Your task to perform on an android device: open app "Cash App" Image 0: 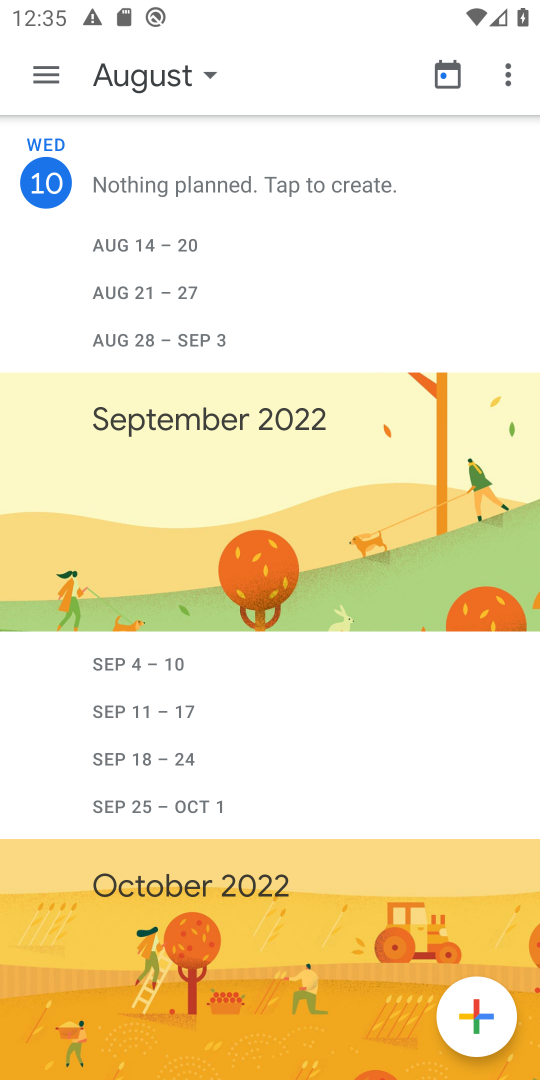
Step 0: press home button
Your task to perform on an android device: open app "Cash App" Image 1: 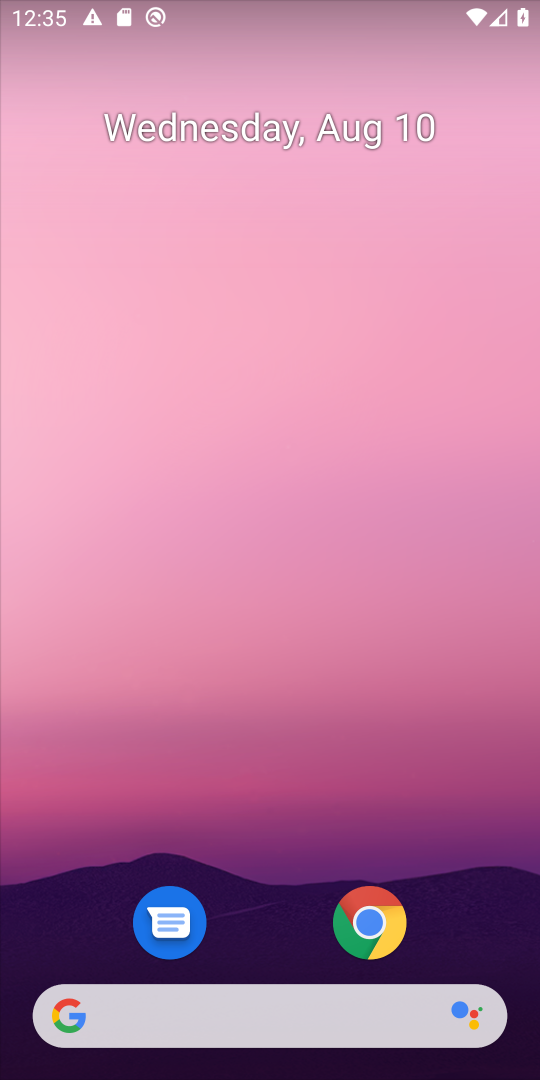
Step 1: drag from (273, 854) to (342, 264)
Your task to perform on an android device: open app "Cash App" Image 2: 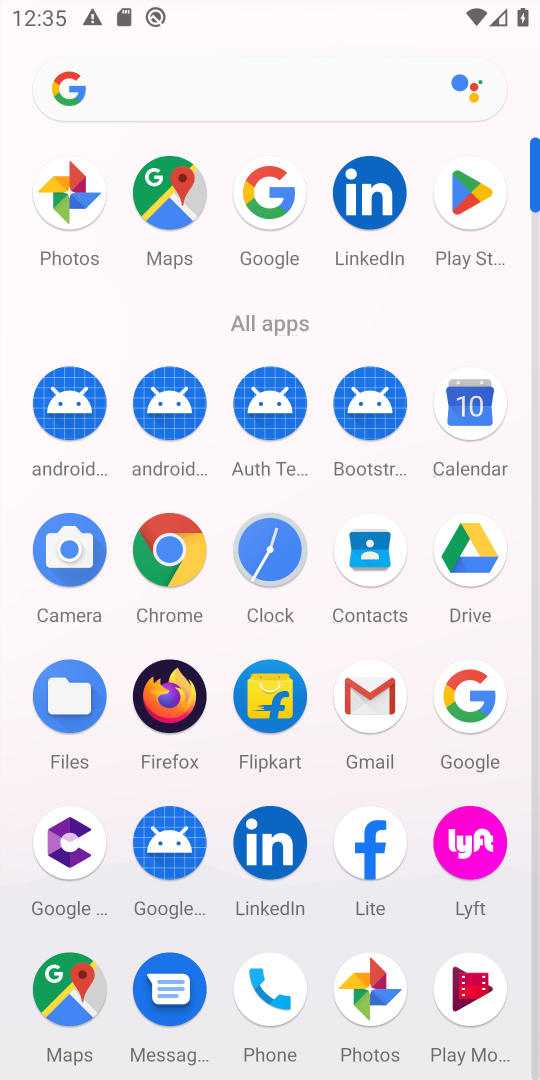
Step 2: click (466, 205)
Your task to perform on an android device: open app "Cash App" Image 3: 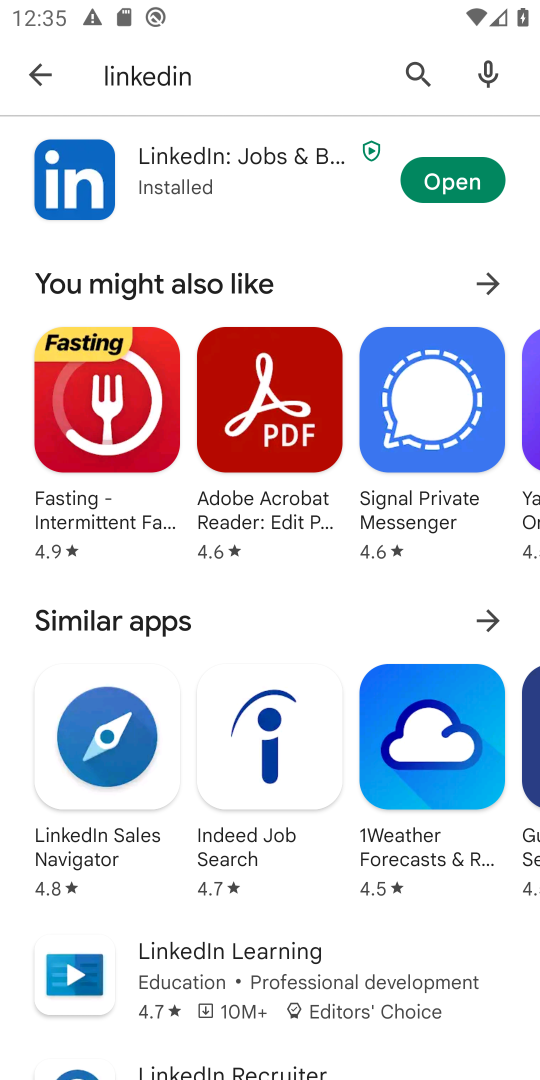
Step 3: click (47, 82)
Your task to perform on an android device: open app "Cash App" Image 4: 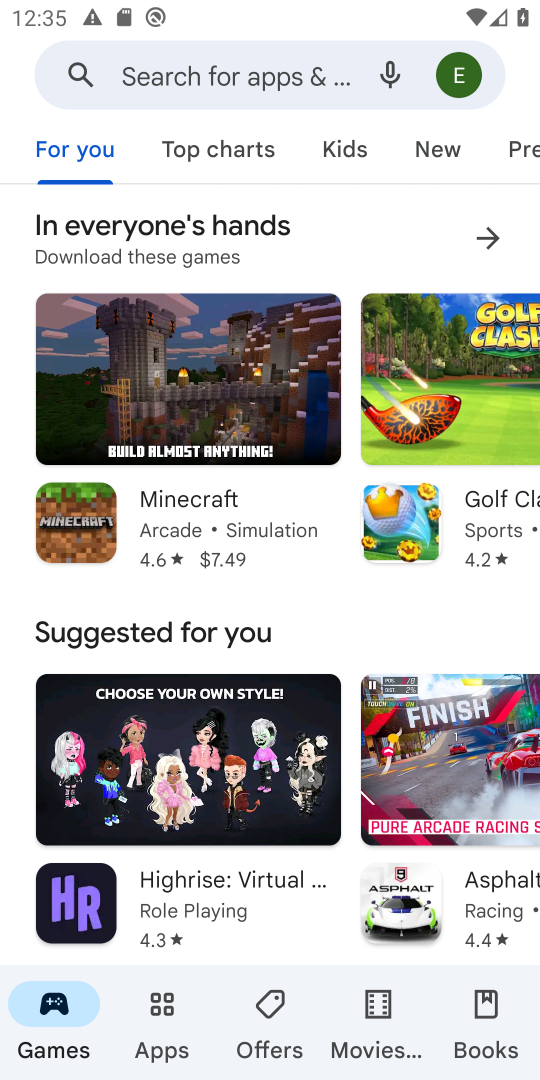
Step 4: click (218, 81)
Your task to perform on an android device: open app "Cash App" Image 5: 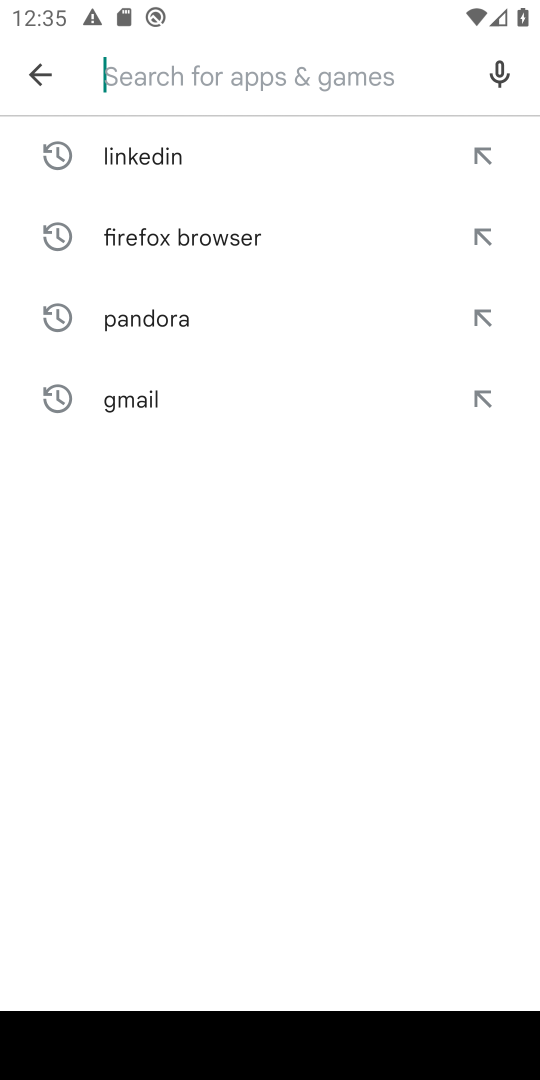
Step 5: type "Cash App"
Your task to perform on an android device: open app "Cash App" Image 6: 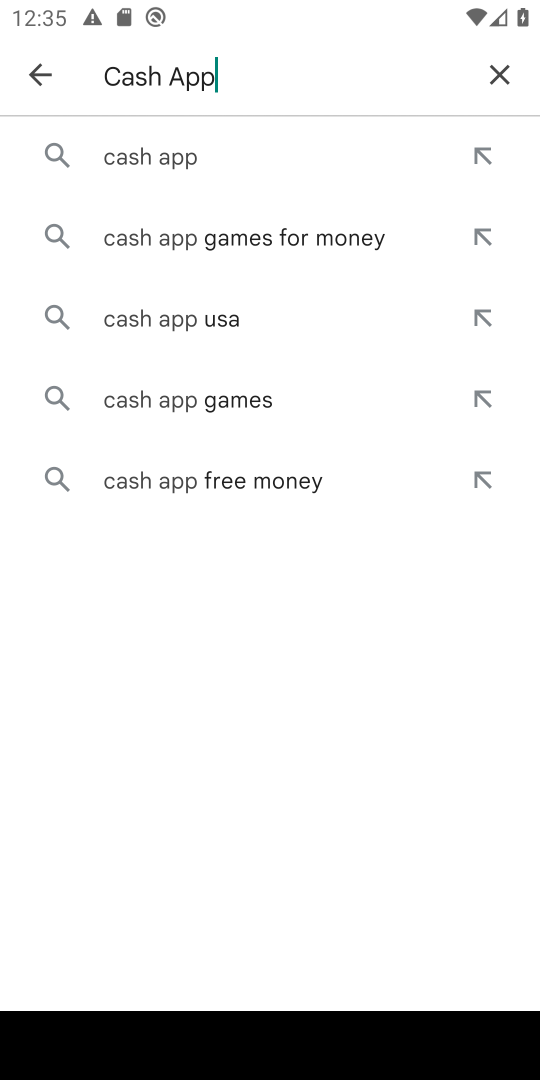
Step 6: click (154, 144)
Your task to perform on an android device: open app "Cash App" Image 7: 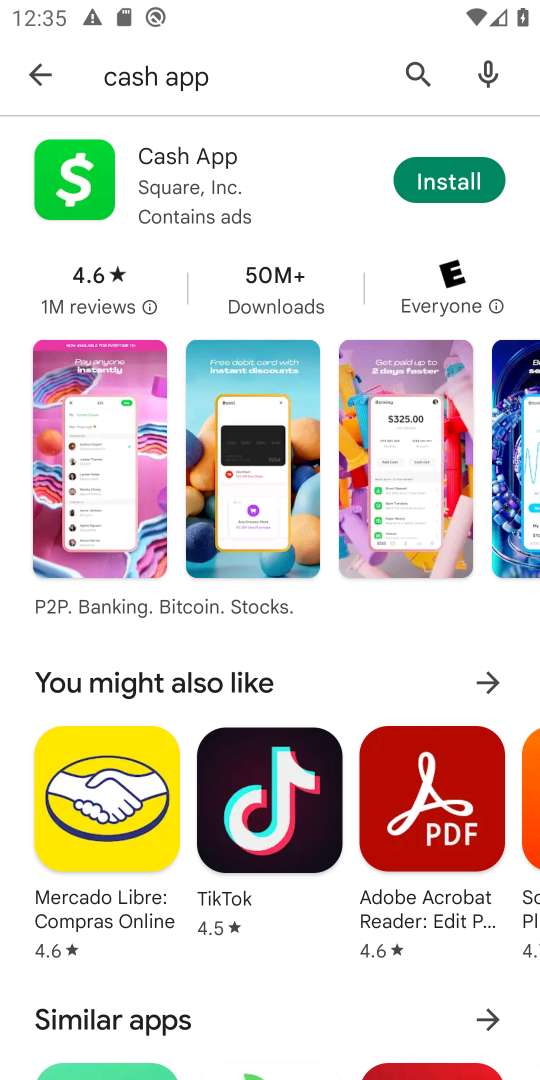
Step 7: click (146, 154)
Your task to perform on an android device: open app "Cash App" Image 8: 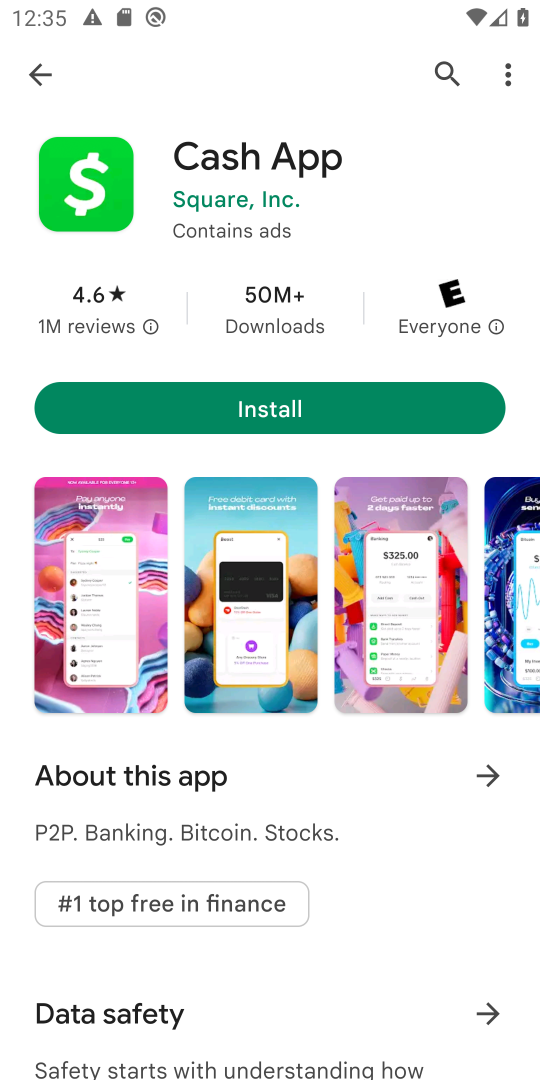
Step 8: click (264, 399)
Your task to perform on an android device: open app "Cash App" Image 9: 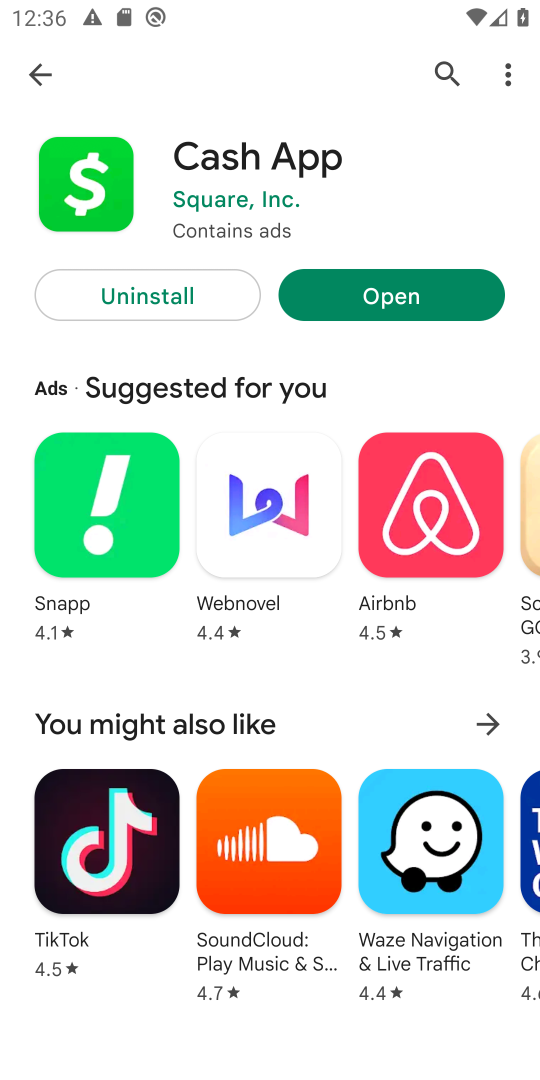
Step 9: click (361, 289)
Your task to perform on an android device: open app "Cash App" Image 10: 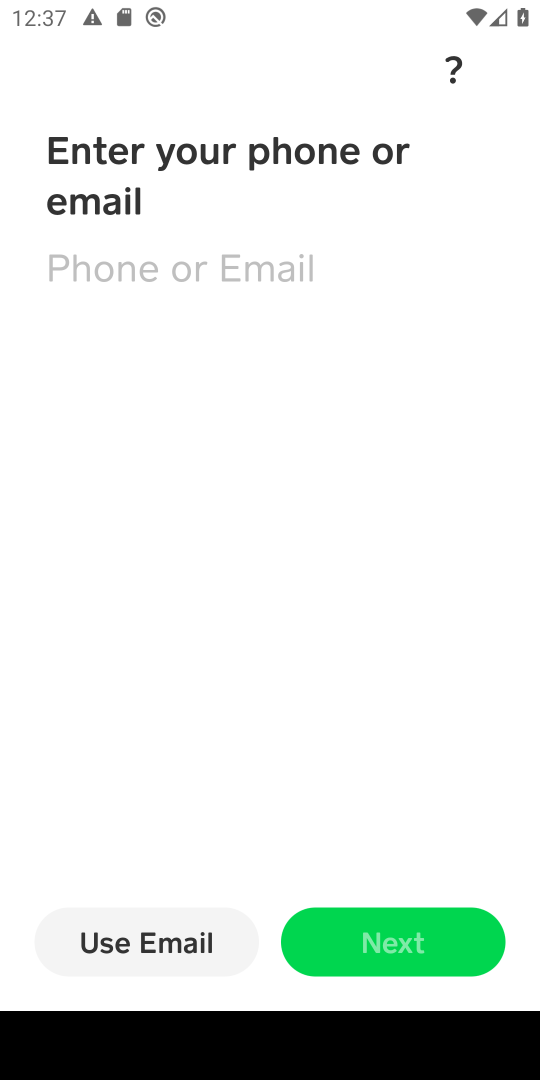
Step 10: task complete